Your task to perform on an android device: Open calendar and show me the fourth week of next month Image 0: 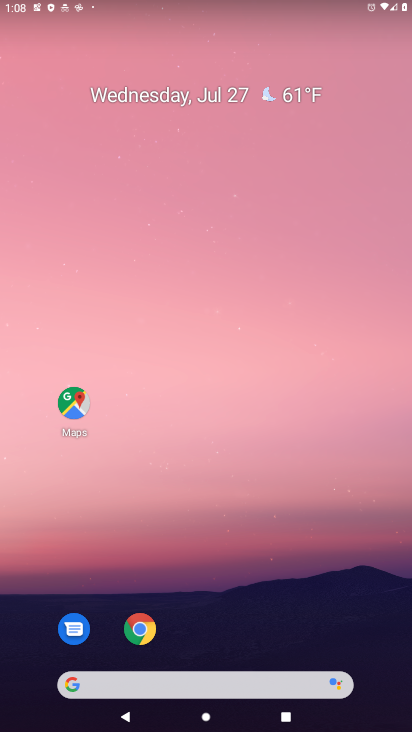
Step 0: drag from (332, 631) to (197, 175)
Your task to perform on an android device: Open calendar and show me the fourth week of next month Image 1: 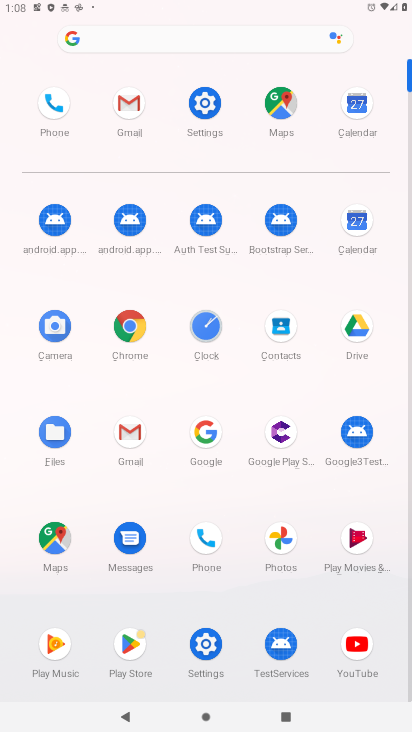
Step 1: click (339, 128)
Your task to perform on an android device: Open calendar and show me the fourth week of next month Image 2: 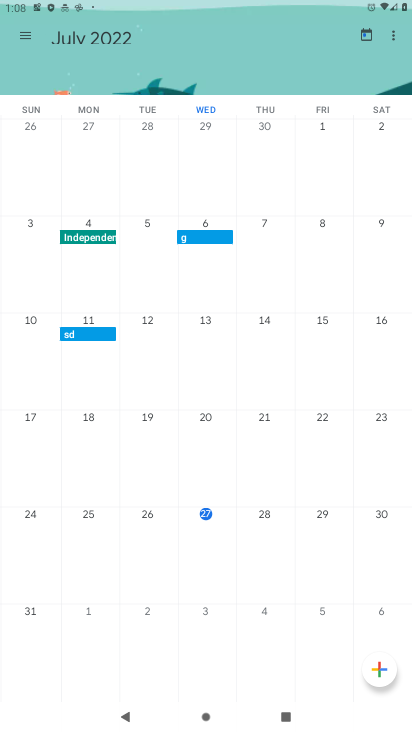
Step 2: task complete